Your task to perform on an android device: turn on sleep mode Image 0: 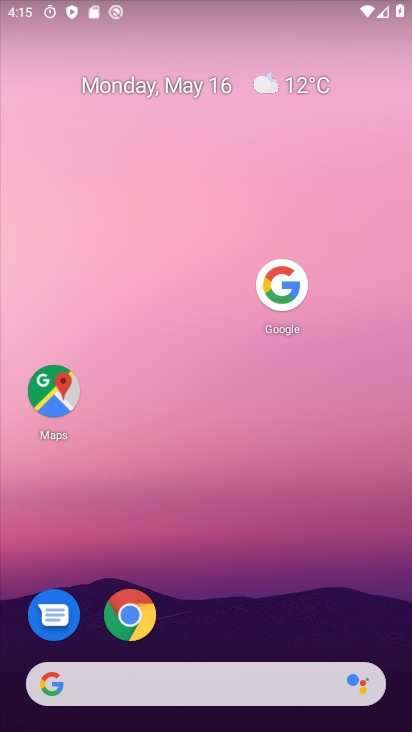
Step 0: drag from (203, 655) to (136, 83)
Your task to perform on an android device: turn on sleep mode Image 1: 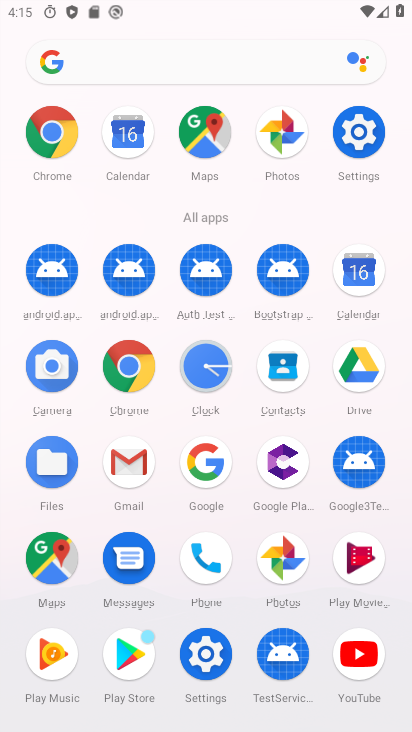
Step 1: click (356, 149)
Your task to perform on an android device: turn on sleep mode Image 2: 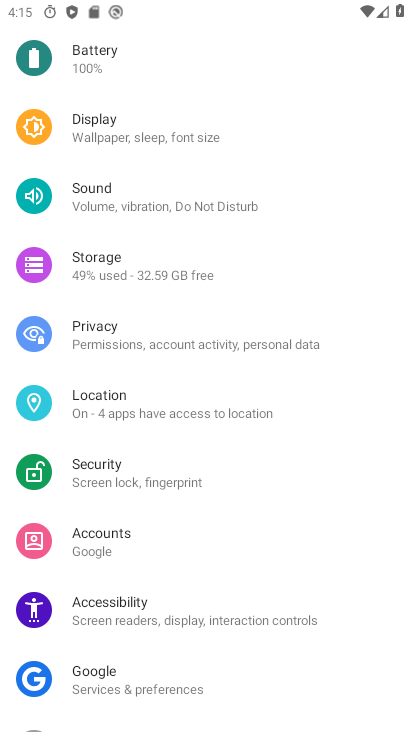
Step 2: click (102, 135)
Your task to perform on an android device: turn on sleep mode Image 3: 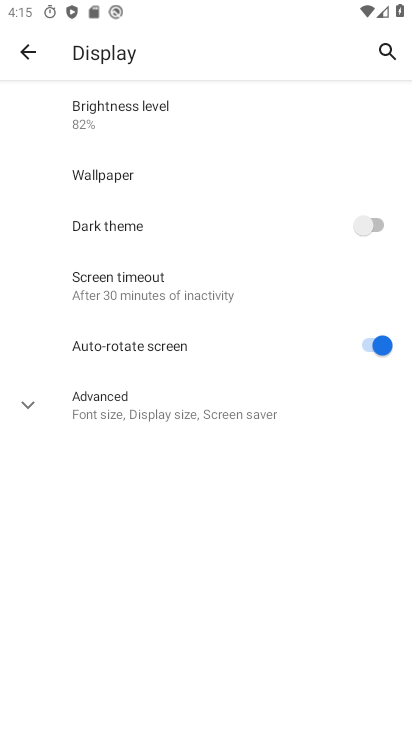
Step 3: task complete